Your task to perform on an android device: Go to privacy settings Image 0: 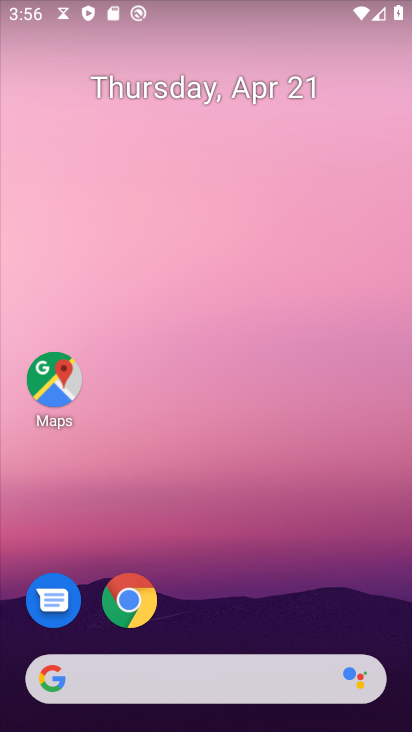
Step 0: drag from (243, 561) to (242, 55)
Your task to perform on an android device: Go to privacy settings Image 1: 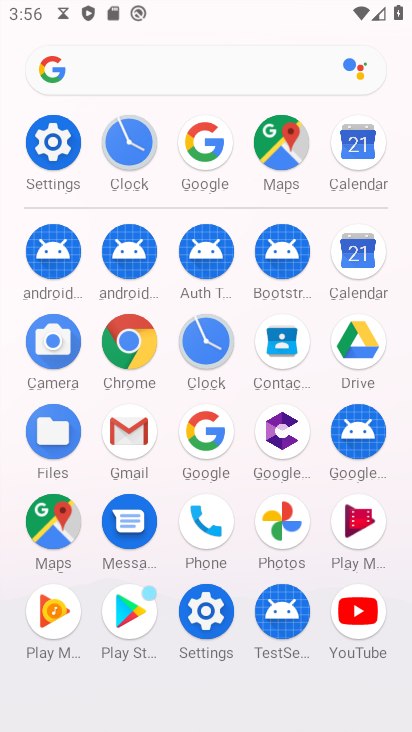
Step 1: click (53, 139)
Your task to perform on an android device: Go to privacy settings Image 2: 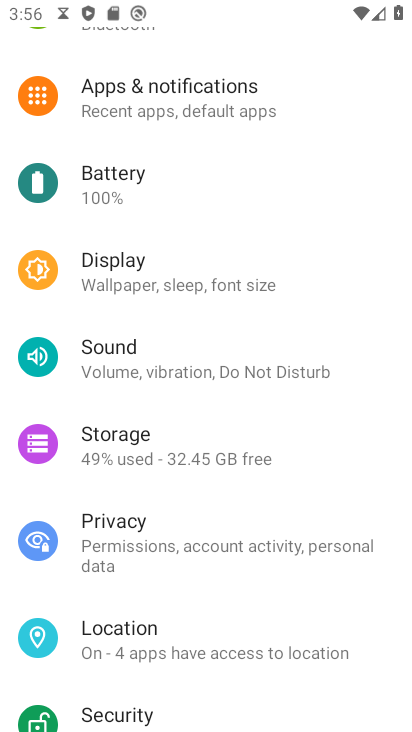
Step 2: click (130, 529)
Your task to perform on an android device: Go to privacy settings Image 3: 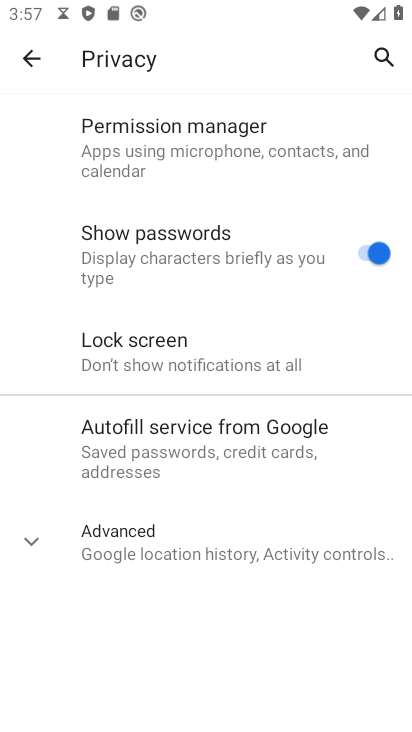
Step 3: task complete